Your task to perform on an android device: Go to settings Image 0: 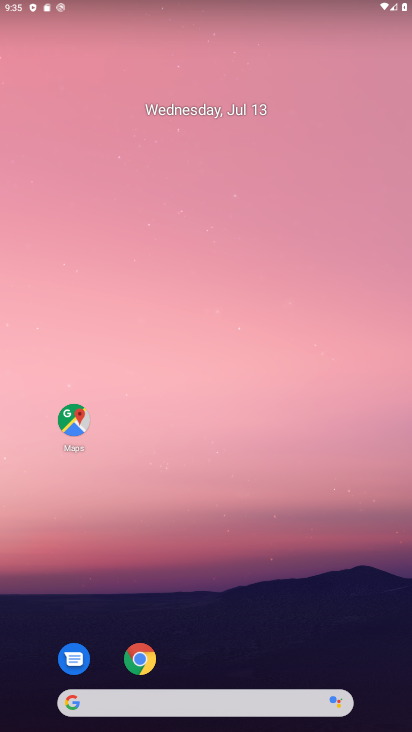
Step 0: drag from (301, 598) to (210, 115)
Your task to perform on an android device: Go to settings Image 1: 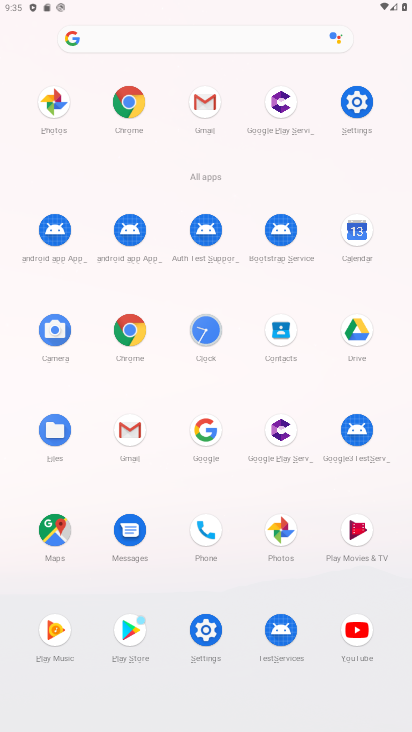
Step 1: click (362, 112)
Your task to perform on an android device: Go to settings Image 2: 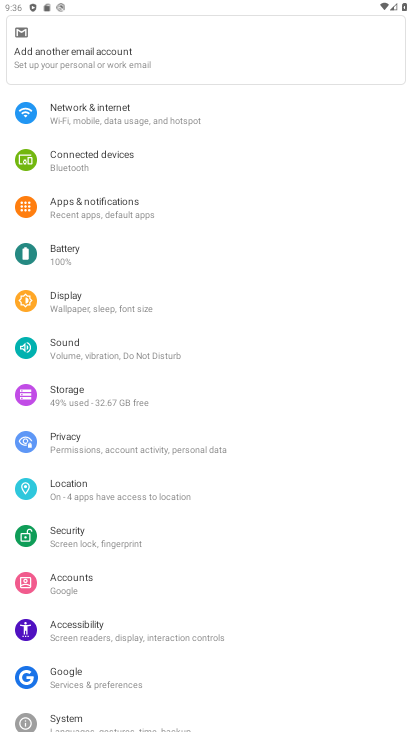
Step 2: task complete